Your task to perform on an android device: open app "Fetch Rewards" (install if not already installed), go to login, and select forgot password Image 0: 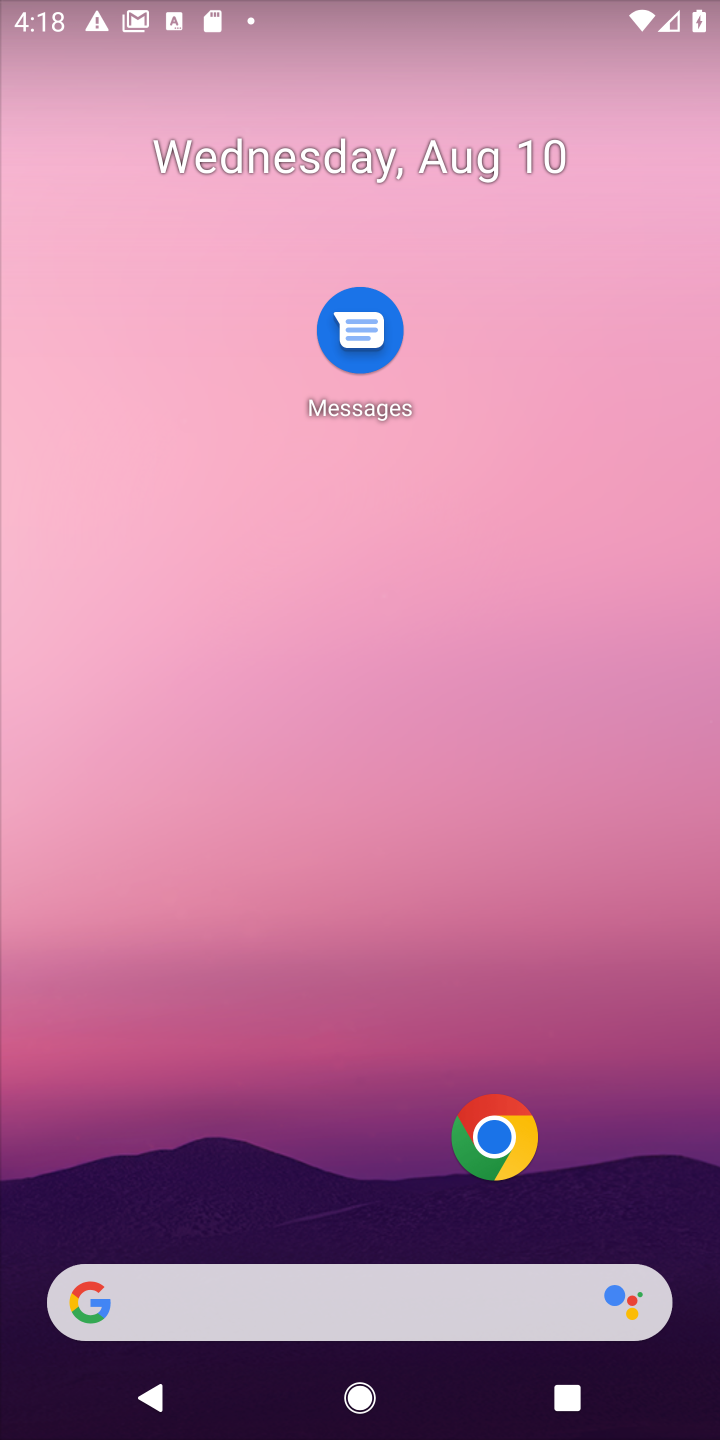
Step 0: press home button
Your task to perform on an android device: open app "Fetch Rewards" (install if not already installed), go to login, and select forgot password Image 1: 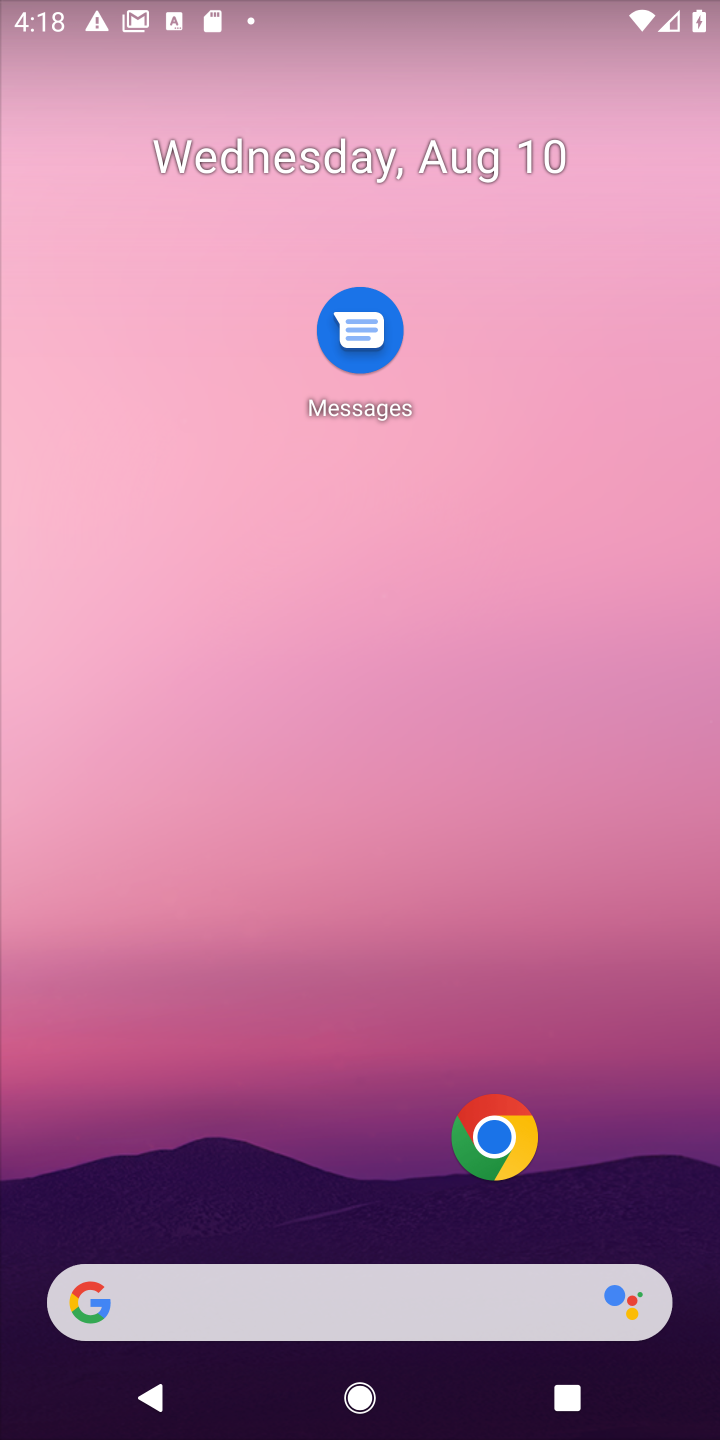
Step 1: drag from (327, 1173) to (433, 26)
Your task to perform on an android device: open app "Fetch Rewards" (install if not already installed), go to login, and select forgot password Image 2: 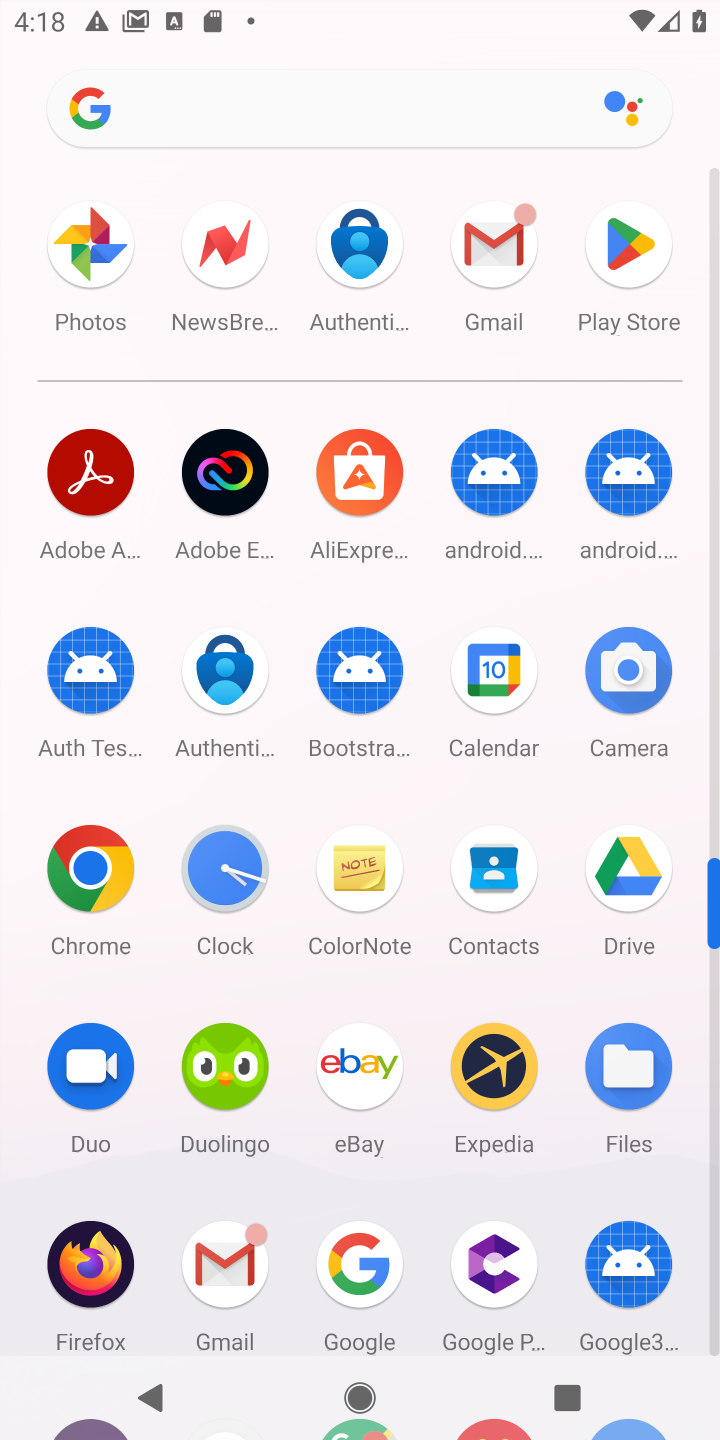
Step 2: click (615, 244)
Your task to perform on an android device: open app "Fetch Rewards" (install if not already installed), go to login, and select forgot password Image 3: 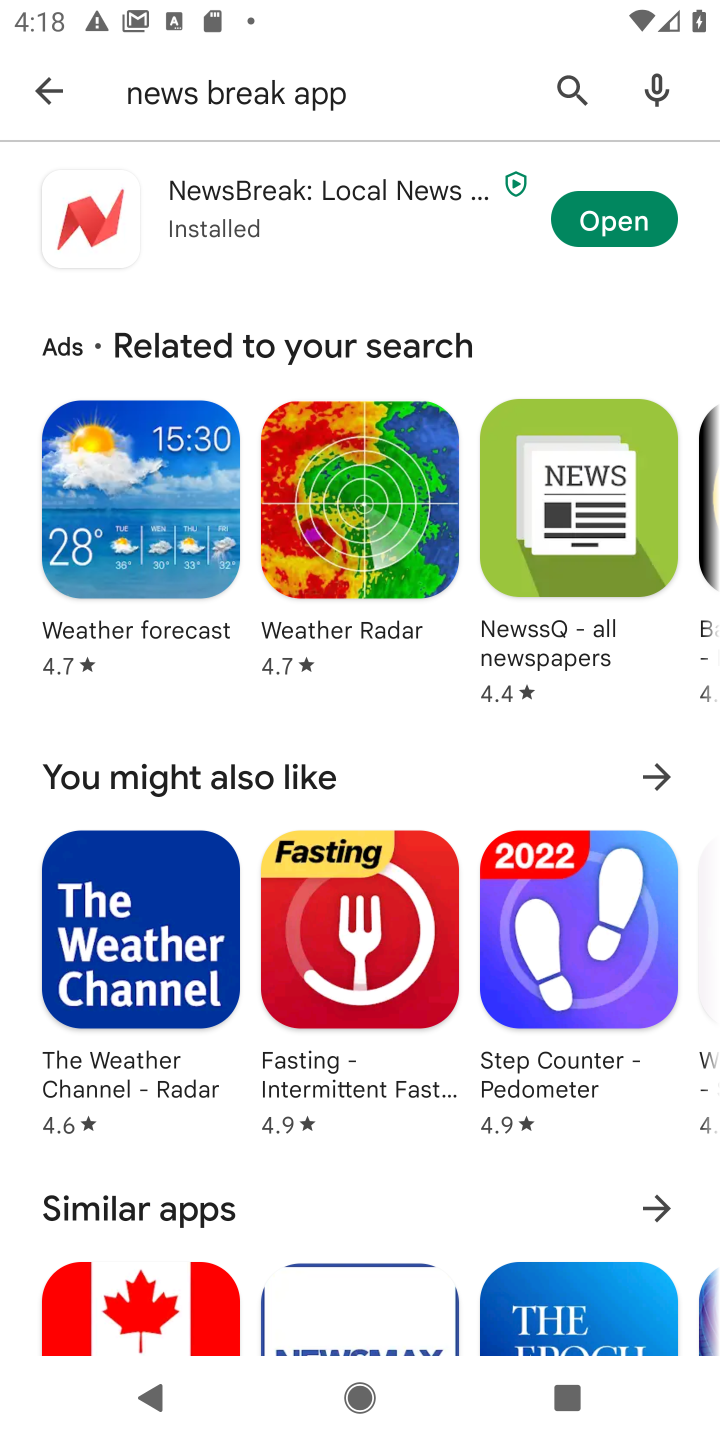
Step 3: click (318, 103)
Your task to perform on an android device: open app "Fetch Rewards" (install if not already installed), go to login, and select forgot password Image 4: 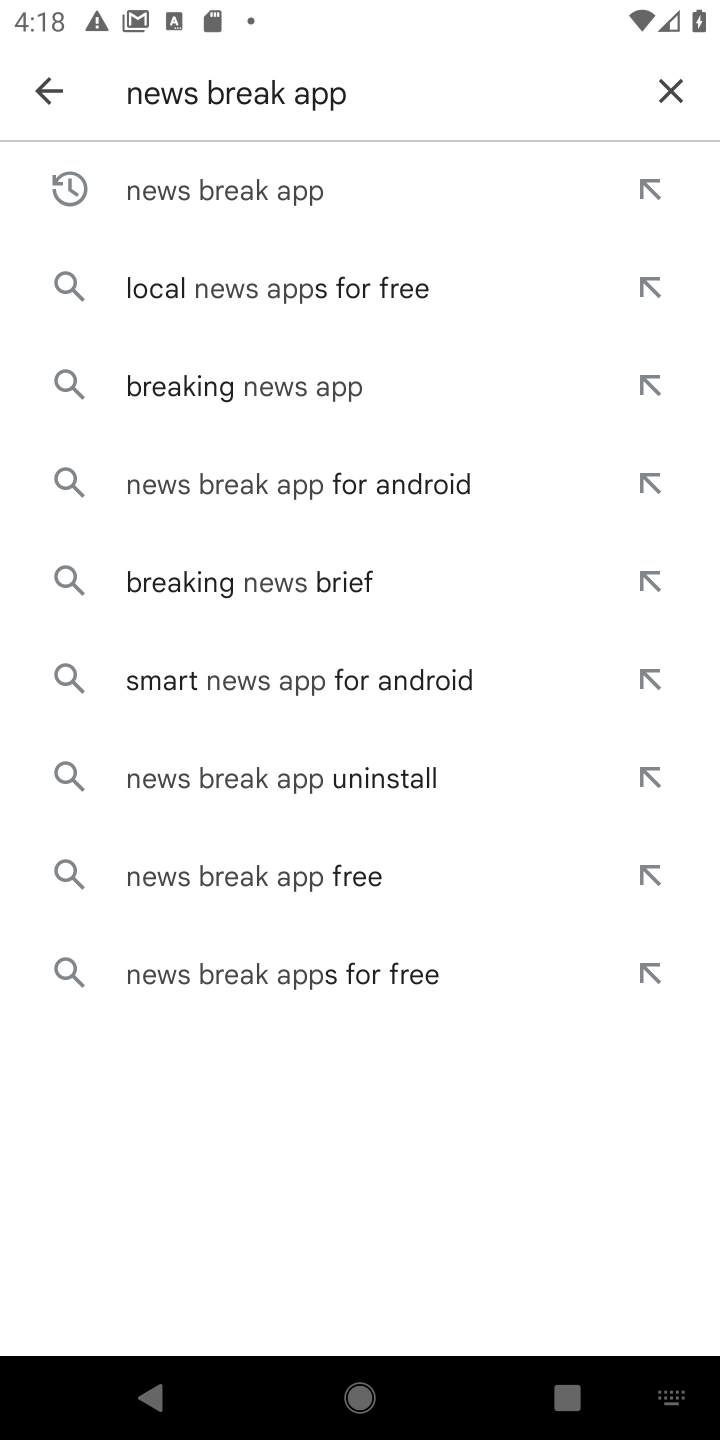
Step 4: click (670, 88)
Your task to perform on an android device: open app "Fetch Rewards" (install if not already installed), go to login, and select forgot password Image 5: 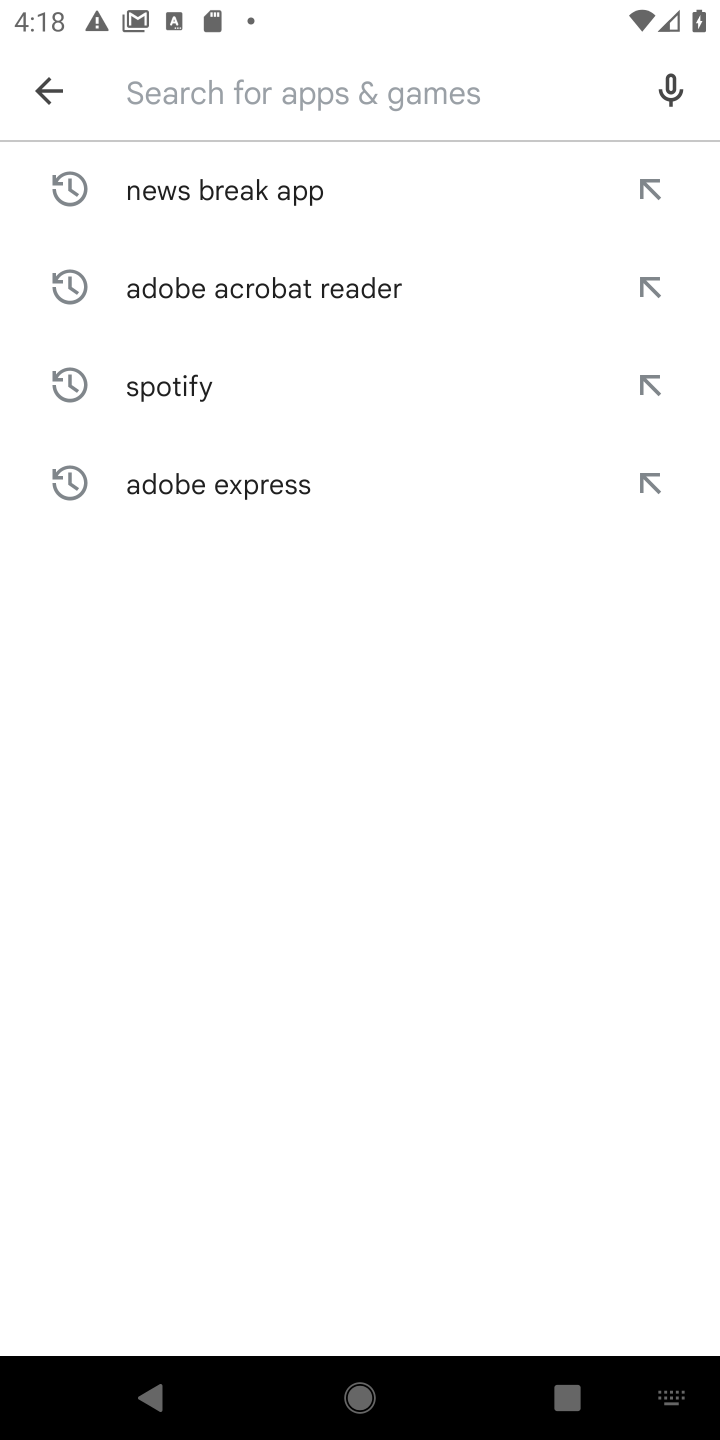
Step 5: type "fetch rewards"
Your task to perform on an android device: open app "Fetch Rewards" (install if not already installed), go to login, and select forgot password Image 6: 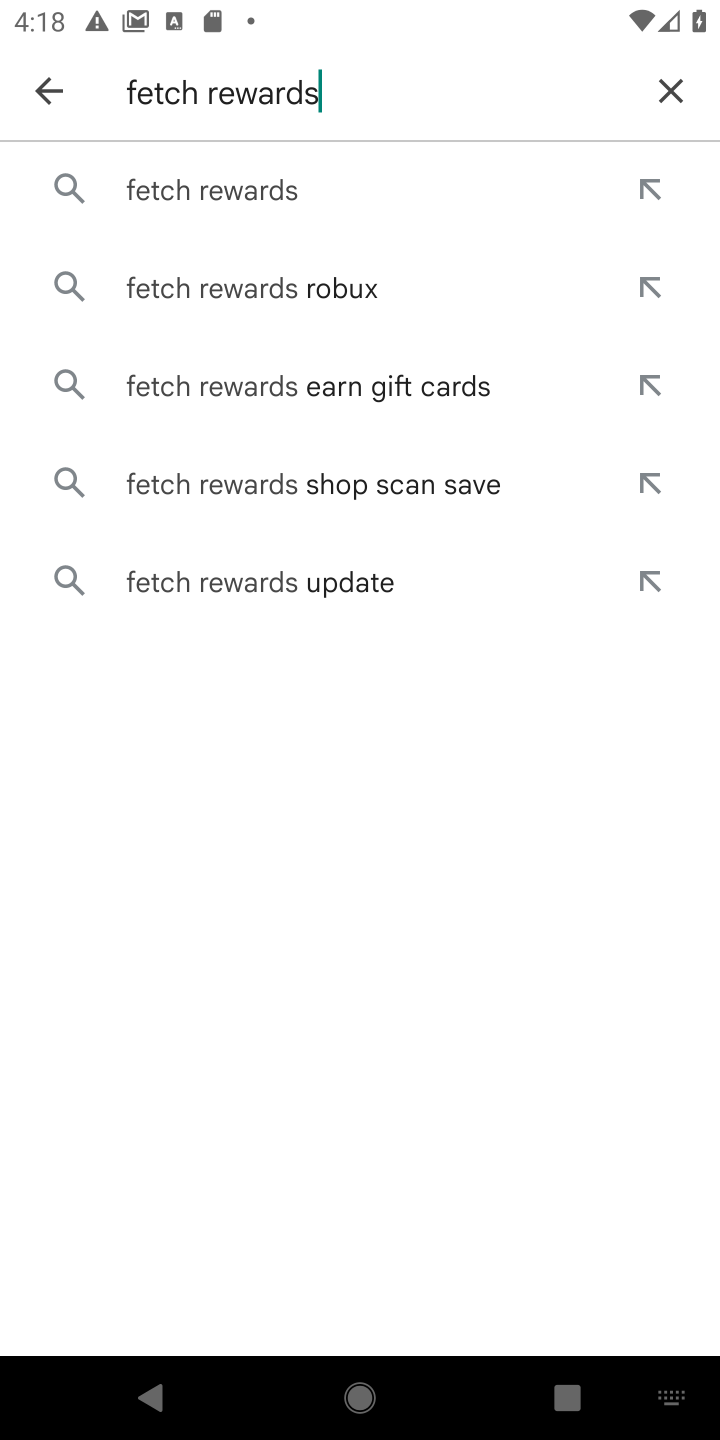
Step 6: click (355, 204)
Your task to perform on an android device: open app "Fetch Rewards" (install if not already installed), go to login, and select forgot password Image 7: 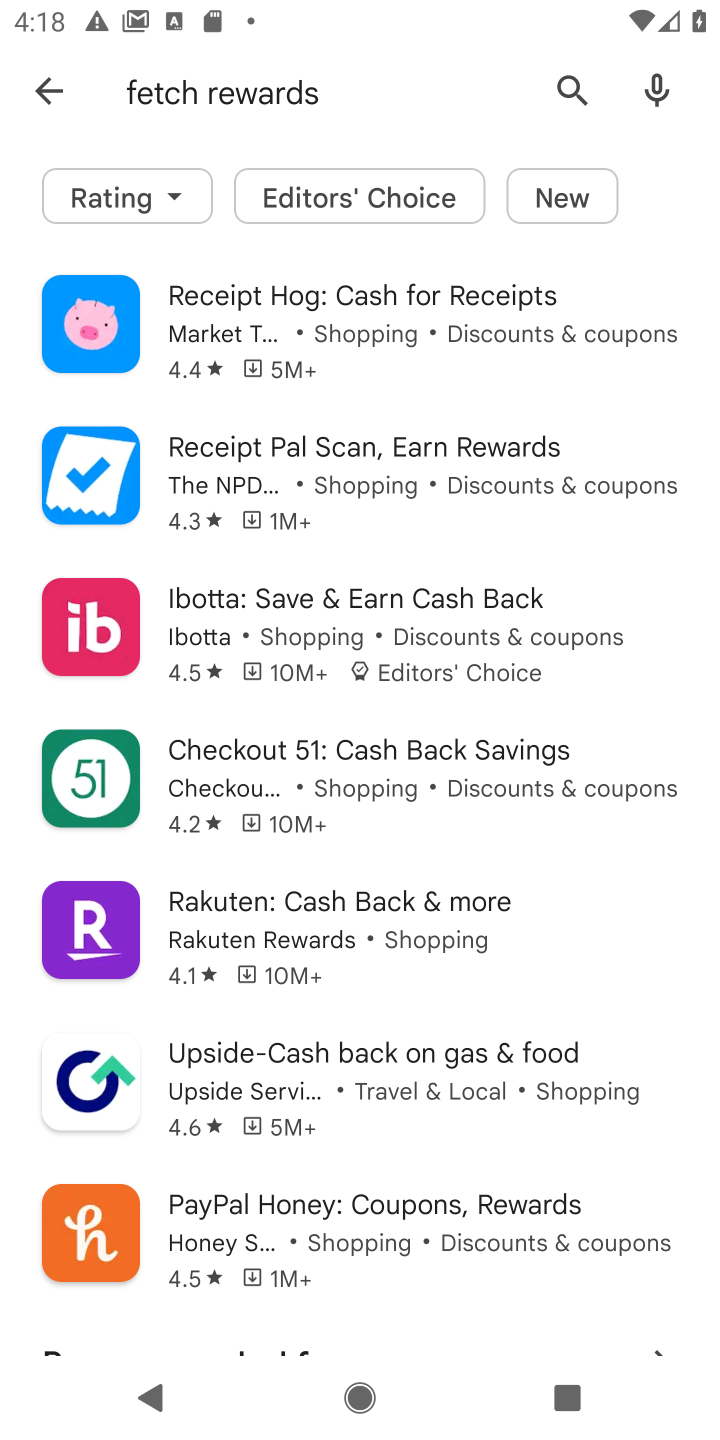
Step 7: task complete